Your task to perform on an android device: turn off picture-in-picture Image 0: 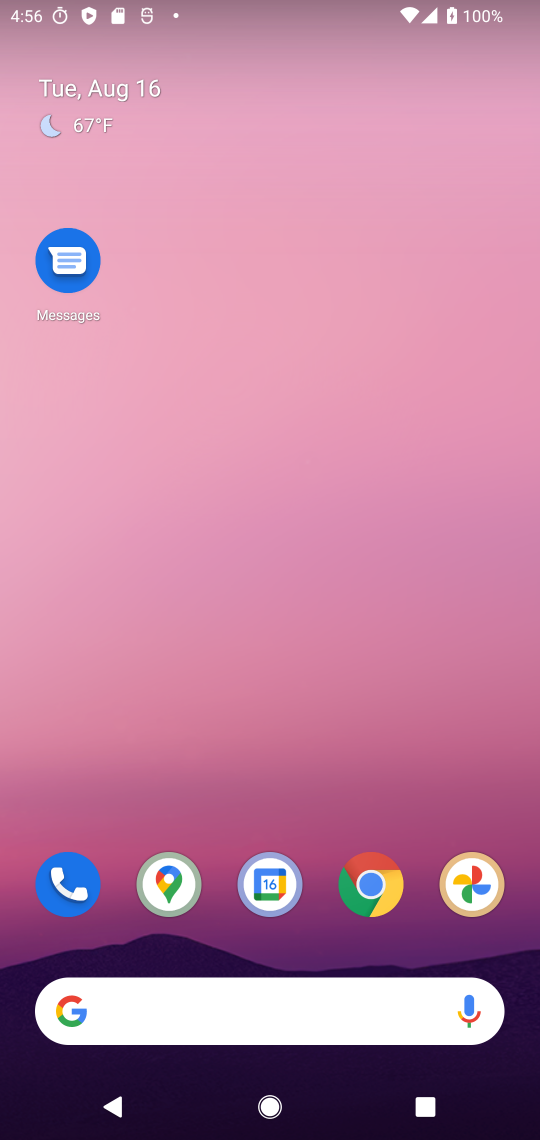
Step 0: drag from (59, 1089) to (435, 315)
Your task to perform on an android device: turn off picture-in-picture Image 1: 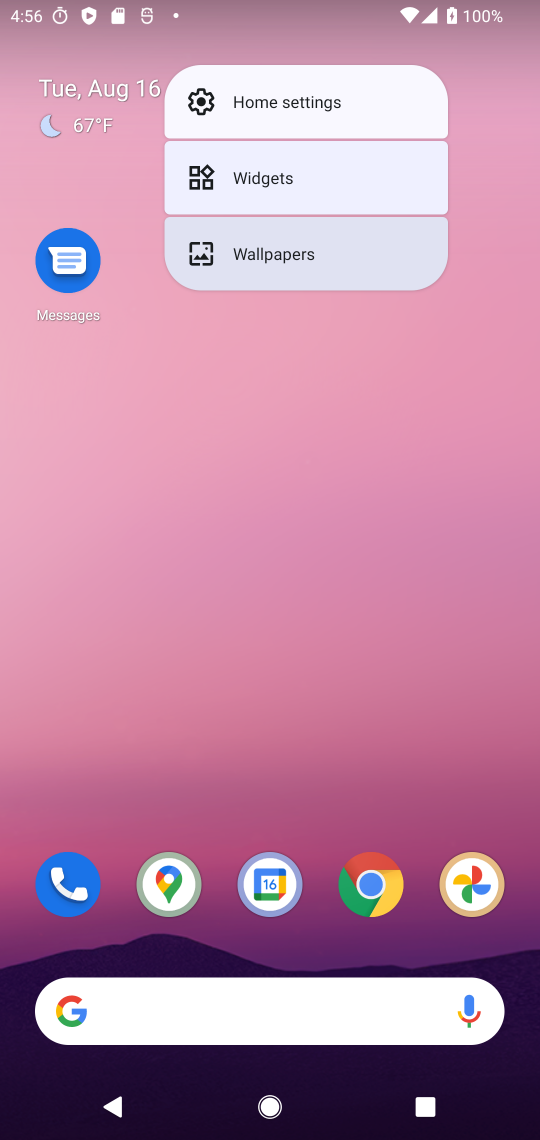
Step 1: task complete